Your task to perform on an android device: Open maps Image 0: 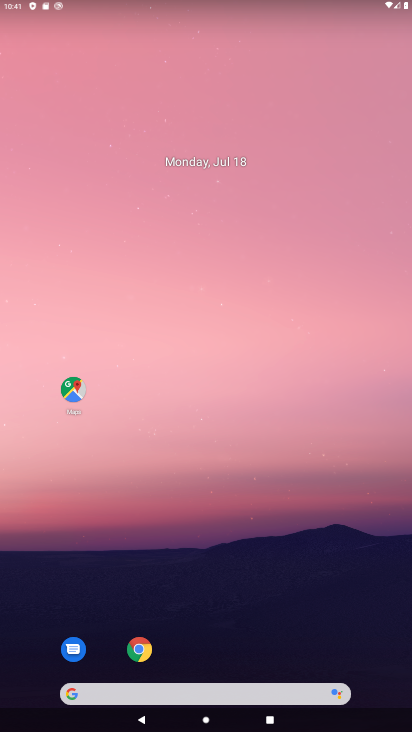
Step 0: click (72, 388)
Your task to perform on an android device: Open maps Image 1: 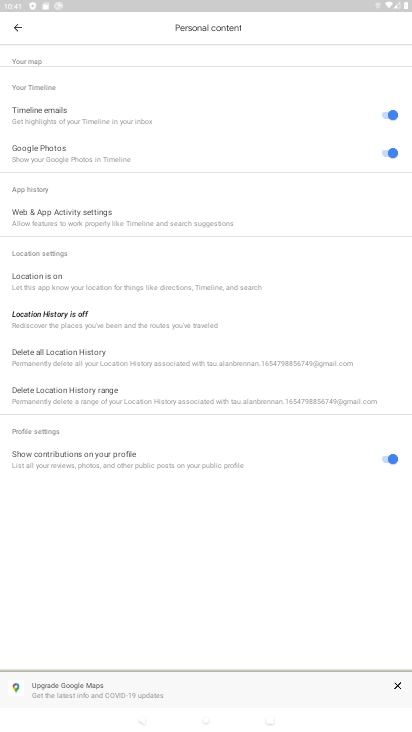
Step 1: click (15, 20)
Your task to perform on an android device: Open maps Image 2: 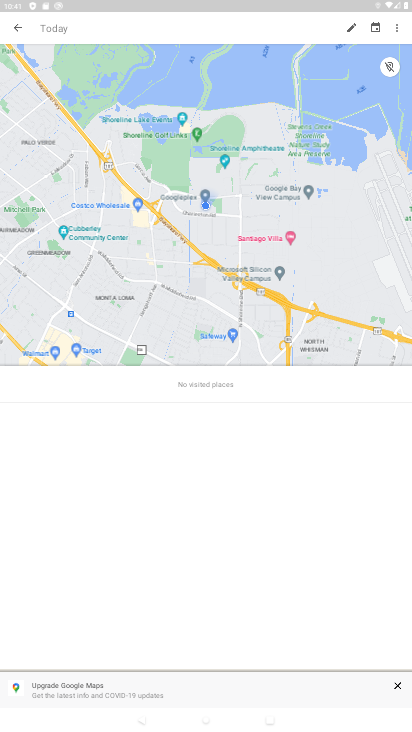
Step 2: task complete